Your task to perform on an android device: delete the emails in spam in the gmail app Image 0: 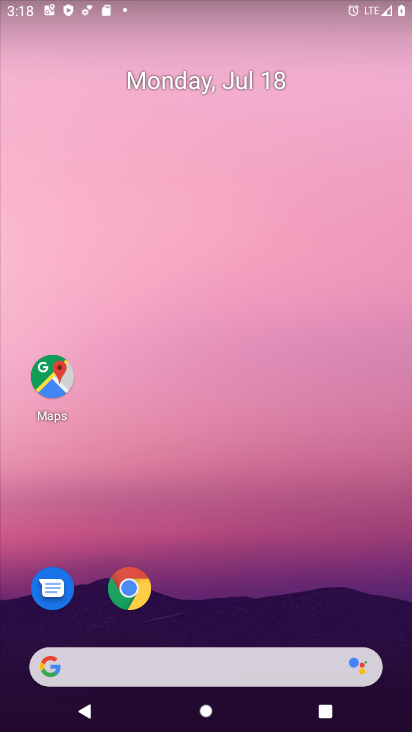
Step 0: drag from (214, 602) to (53, 135)
Your task to perform on an android device: delete the emails in spam in the gmail app Image 1: 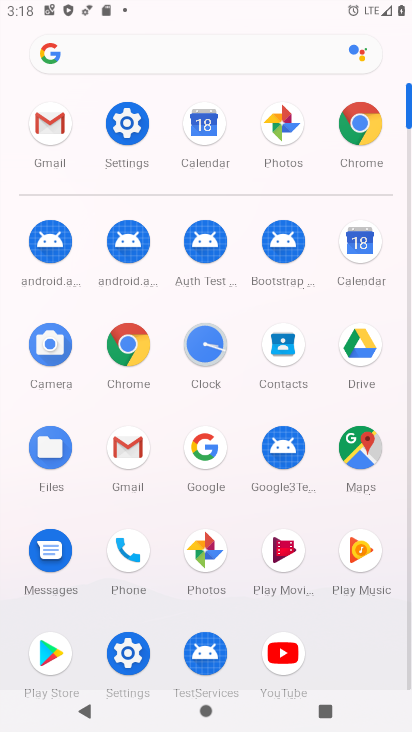
Step 1: click (49, 112)
Your task to perform on an android device: delete the emails in spam in the gmail app Image 2: 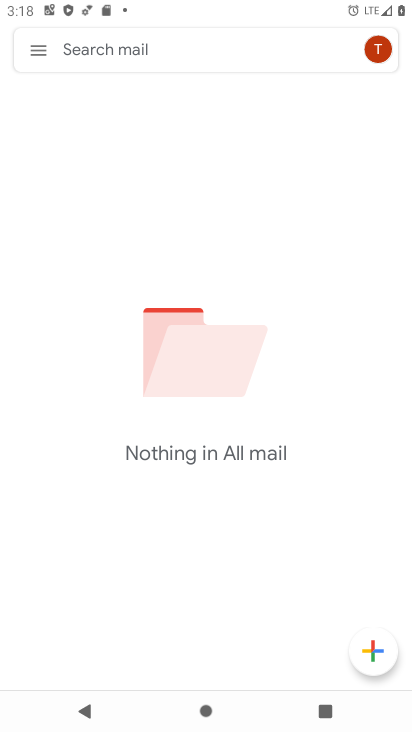
Step 2: click (45, 46)
Your task to perform on an android device: delete the emails in spam in the gmail app Image 3: 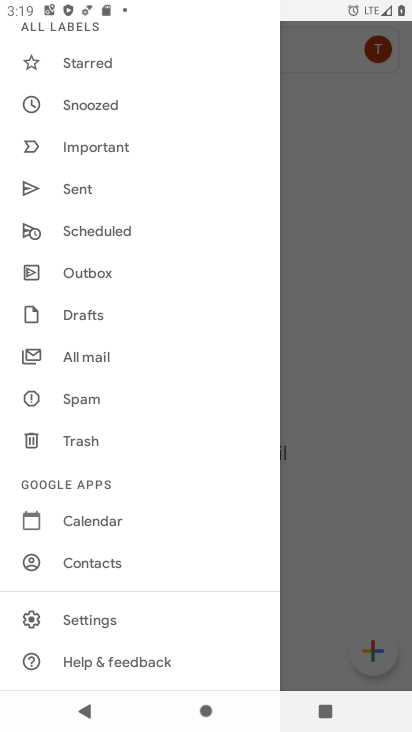
Step 3: click (64, 392)
Your task to perform on an android device: delete the emails in spam in the gmail app Image 4: 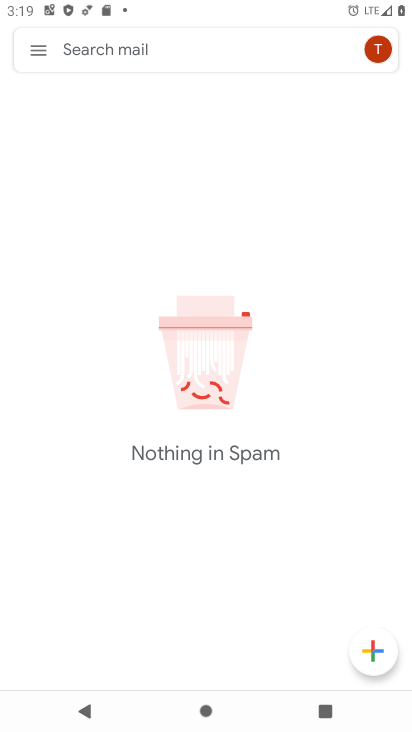
Step 4: task complete